Your task to perform on an android device: turn on sleep mode Image 0: 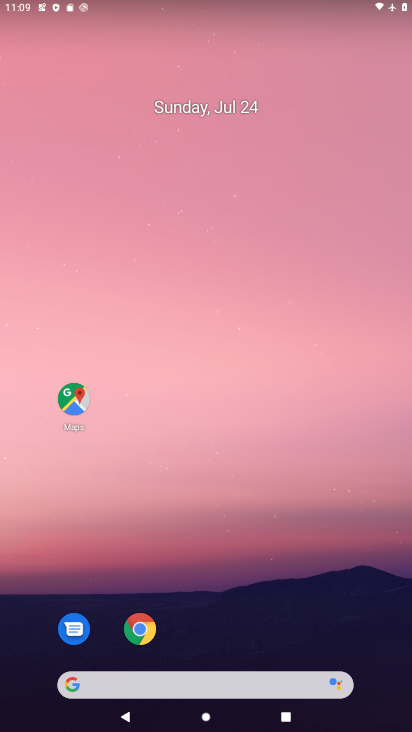
Step 0: drag from (279, 632) to (316, 1)
Your task to perform on an android device: turn on sleep mode Image 1: 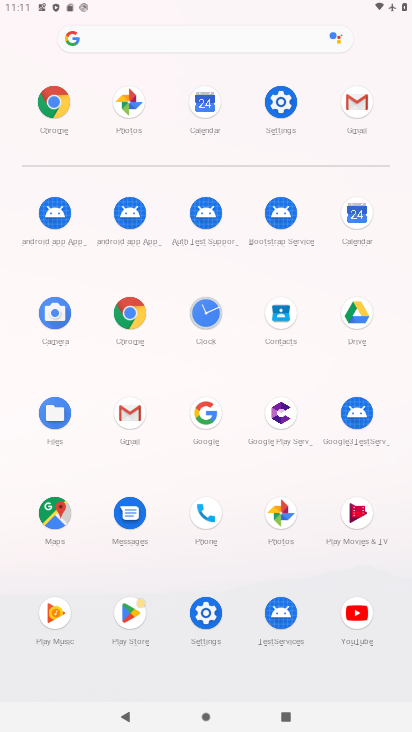
Step 1: click (271, 115)
Your task to perform on an android device: turn on sleep mode Image 2: 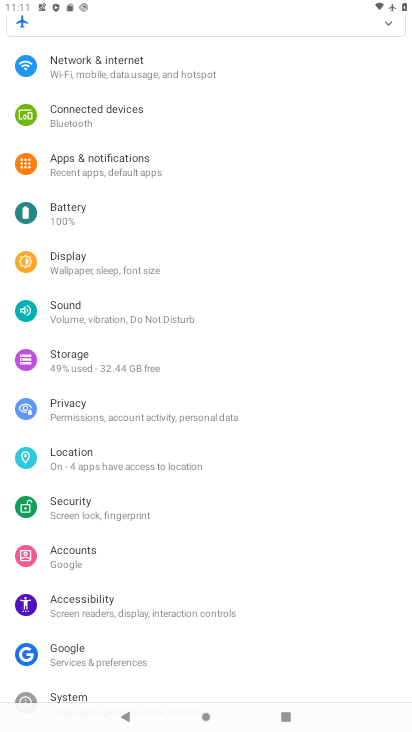
Step 2: task complete